Your task to perform on an android device: turn off notifications in google photos Image 0: 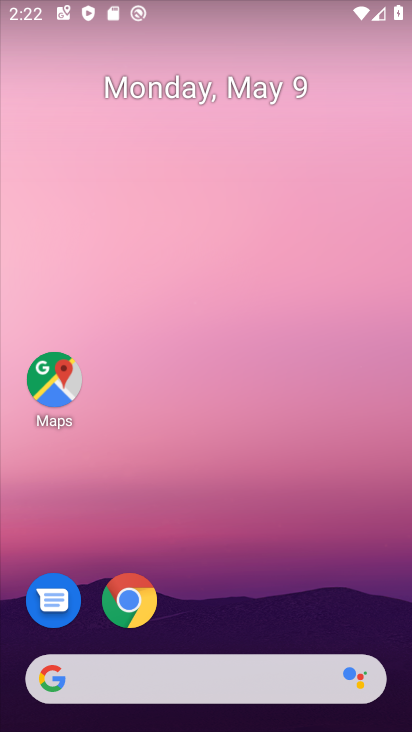
Step 0: drag from (224, 546) to (295, 60)
Your task to perform on an android device: turn off notifications in google photos Image 1: 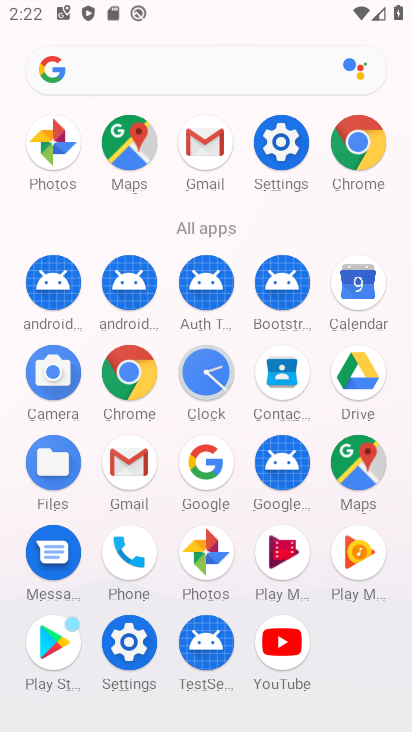
Step 1: click (278, 137)
Your task to perform on an android device: turn off notifications in google photos Image 2: 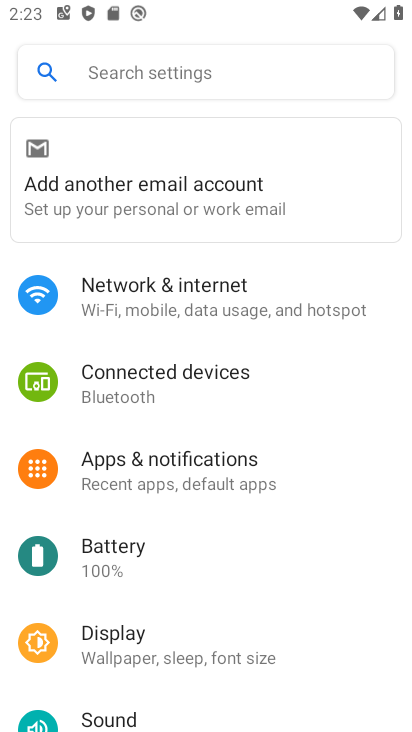
Step 2: click (140, 472)
Your task to perform on an android device: turn off notifications in google photos Image 3: 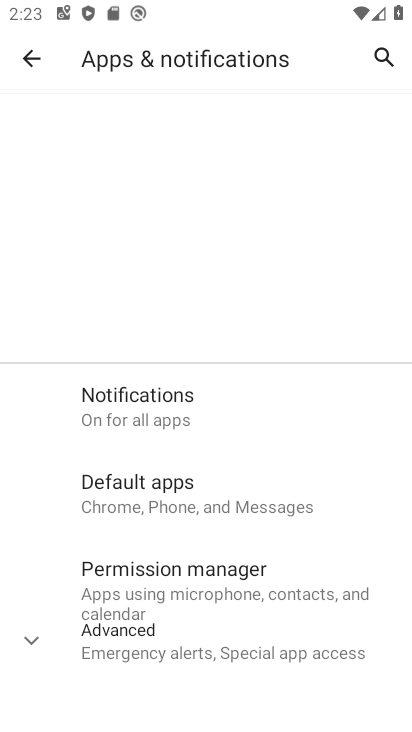
Step 3: press home button
Your task to perform on an android device: turn off notifications in google photos Image 4: 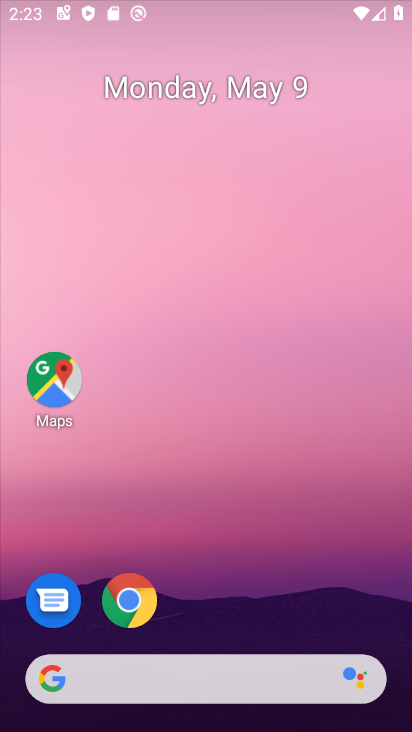
Step 4: drag from (189, 591) to (287, 92)
Your task to perform on an android device: turn off notifications in google photos Image 5: 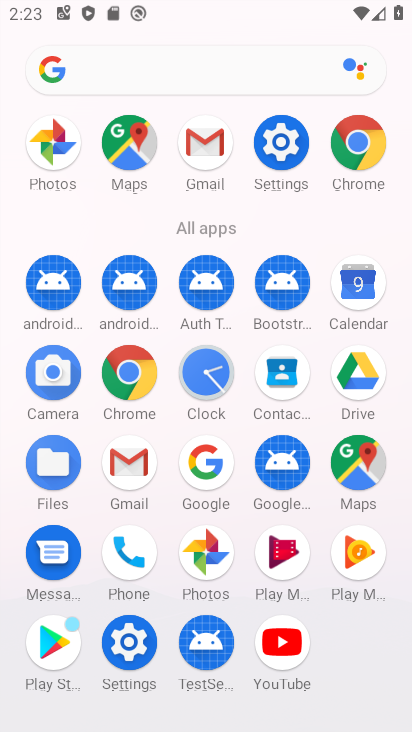
Step 5: click (201, 552)
Your task to perform on an android device: turn off notifications in google photos Image 6: 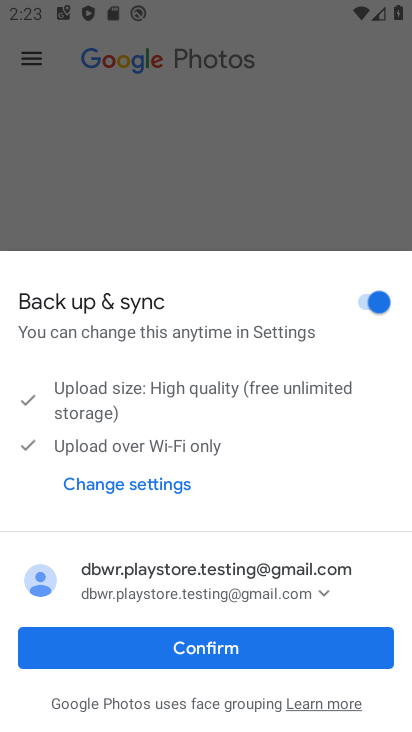
Step 6: click (209, 660)
Your task to perform on an android device: turn off notifications in google photos Image 7: 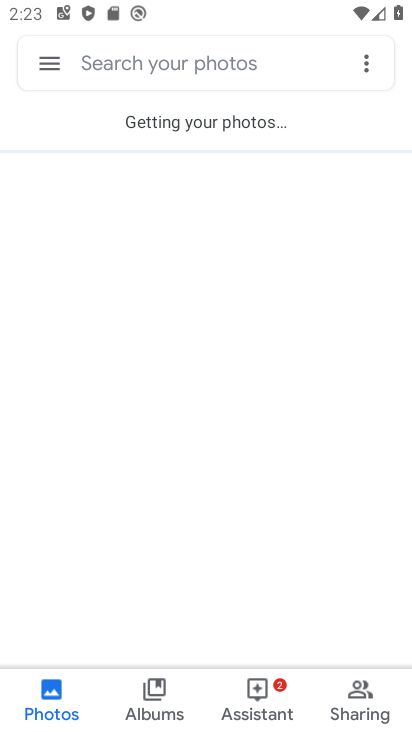
Step 7: click (44, 68)
Your task to perform on an android device: turn off notifications in google photos Image 8: 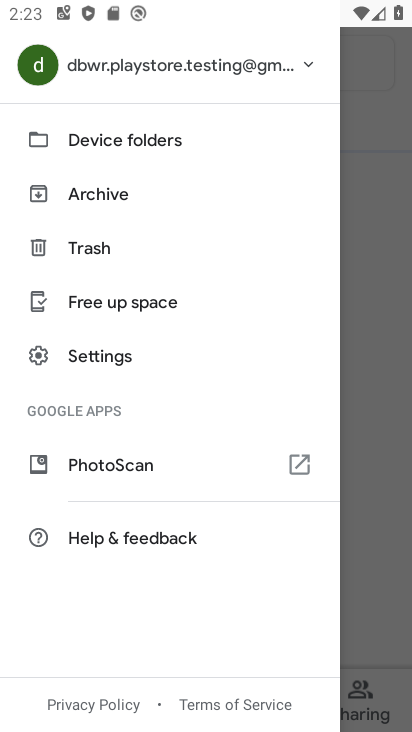
Step 8: click (104, 359)
Your task to perform on an android device: turn off notifications in google photos Image 9: 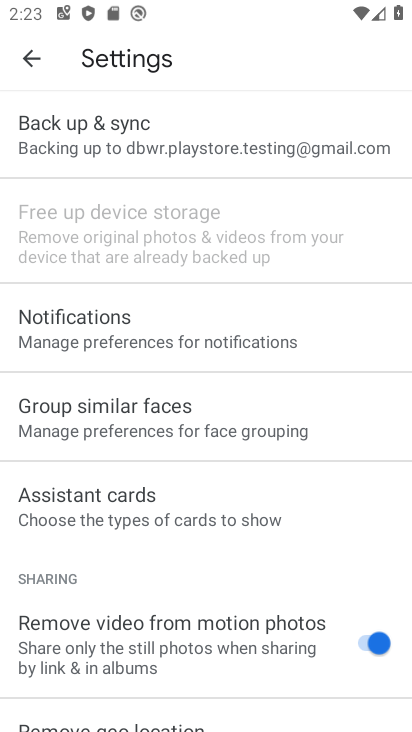
Step 9: click (103, 330)
Your task to perform on an android device: turn off notifications in google photos Image 10: 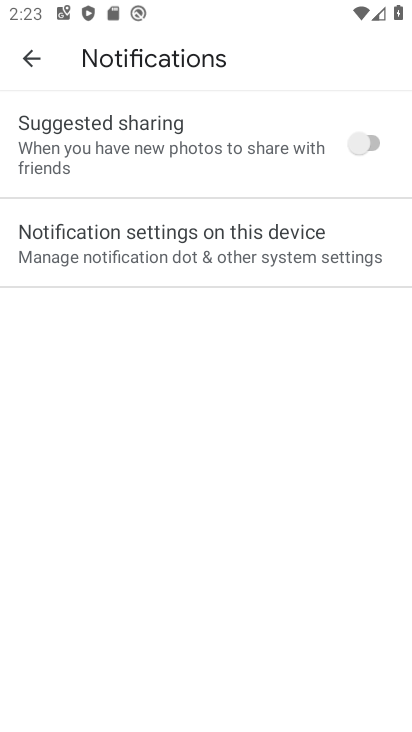
Step 10: click (146, 236)
Your task to perform on an android device: turn off notifications in google photos Image 11: 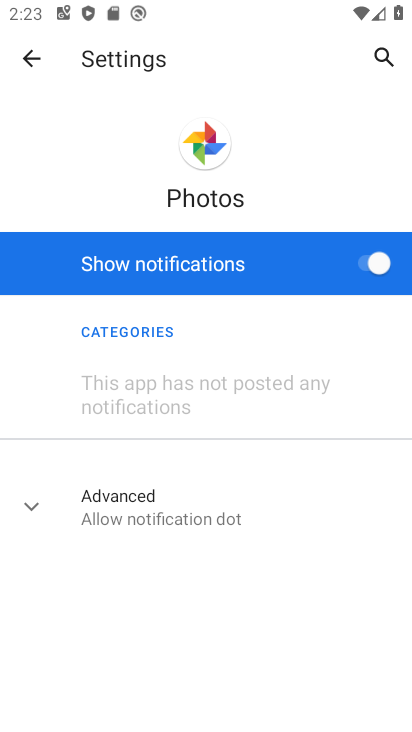
Step 11: drag from (192, 615) to (247, 177)
Your task to perform on an android device: turn off notifications in google photos Image 12: 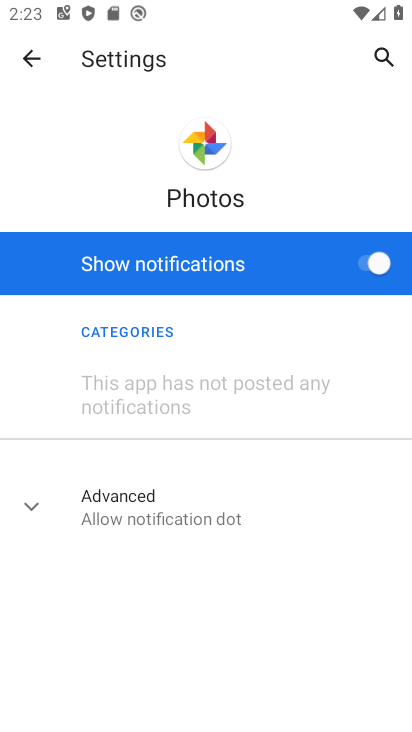
Step 12: click (382, 259)
Your task to perform on an android device: turn off notifications in google photos Image 13: 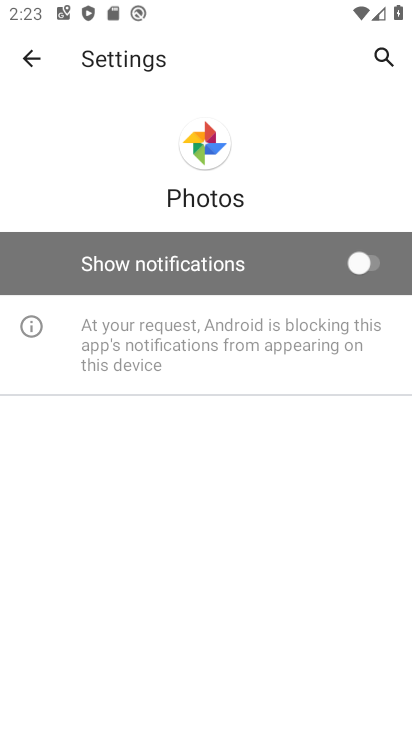
Step 13: task complete